Your task to perform on an android device: open a new tab in the chrome app Image 0: 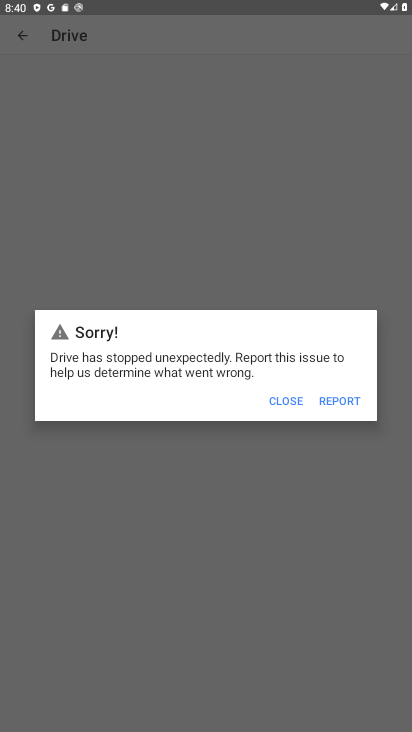
Step 0: press home button
Your task to perform on an android device: open a new tab in the chrome app Image 1: 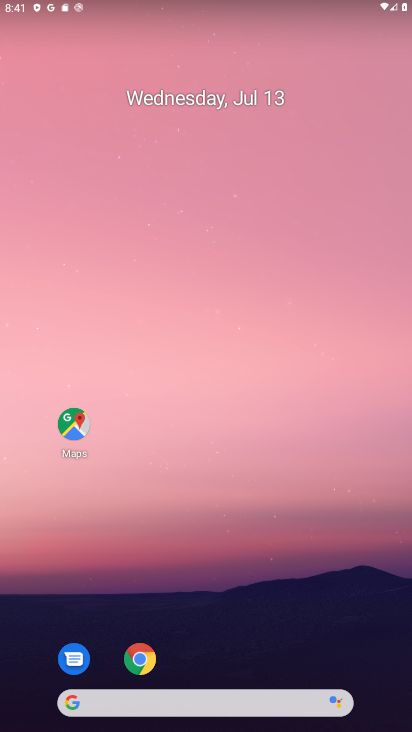
Step 1: click (154, 650)
Your task to perform on an android device: open a new tab in the chrome app Image 2: 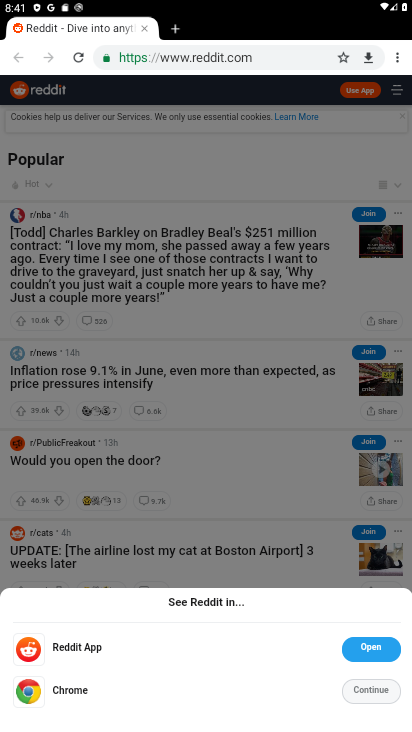
Step 2: click (181, 33)
Your task to perform on an android device: open a new tab in the chrome app Image 3: 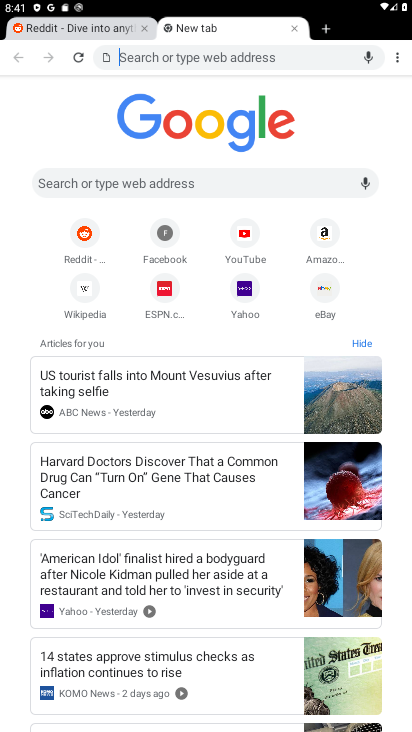
Step 3: task complete